Your task to perform on an android device: move a message to another label in the gmail app Image 0: 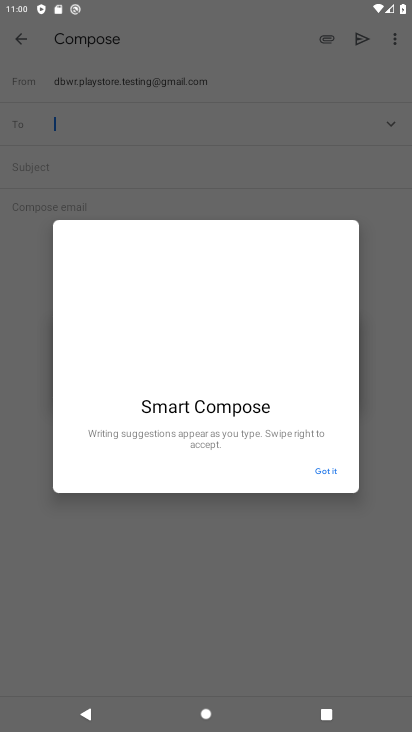
Step 0: press home button
Your task to perform on an android device: move a message to another label in the gmail app Image 1: 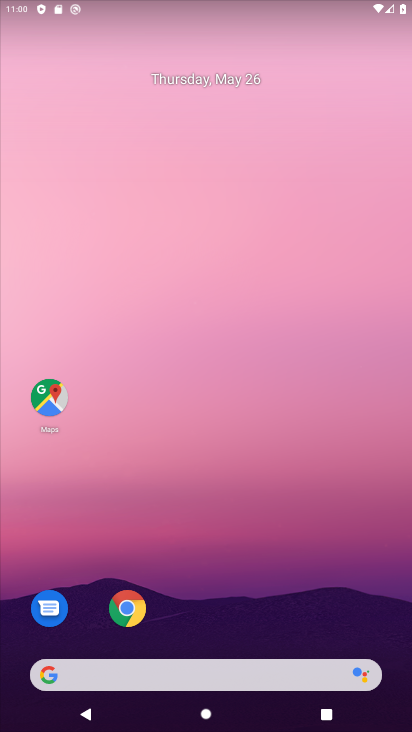
Step 1: drag from (285, 544) to (106, 37)
Your task to perform on an android device: move a message to another label in the gmail app Image 2: 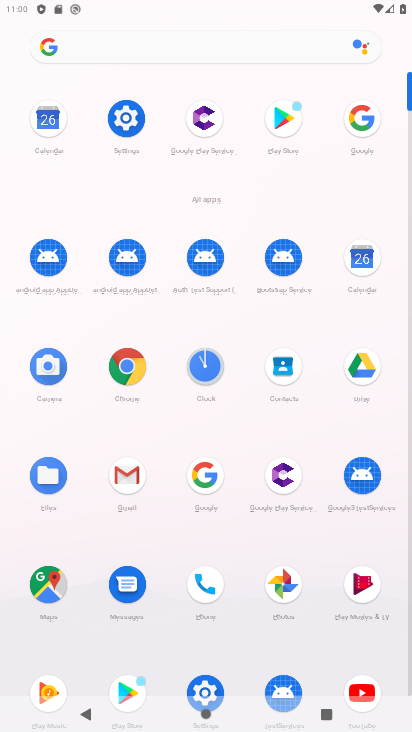
Step 2: click (130, 478)
Your task to perform on an android device: move a message to another label in the gmail app Image 3: 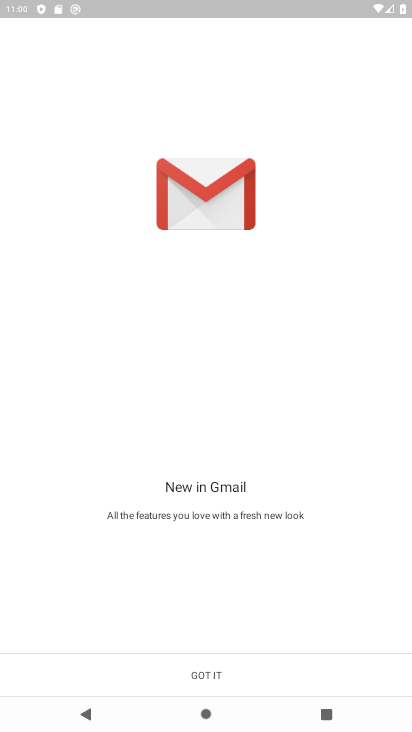
Step 3: click (211, 664)
Your task to perform on an android device: move a message to another label in the gmail app Image 4: 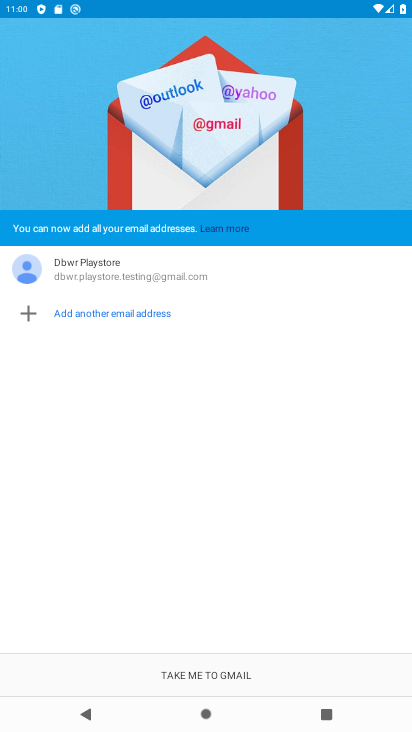
Step 4: click (203, 669)
Your task to perform on an android device: move a message to another label in the gmail app Image 5: 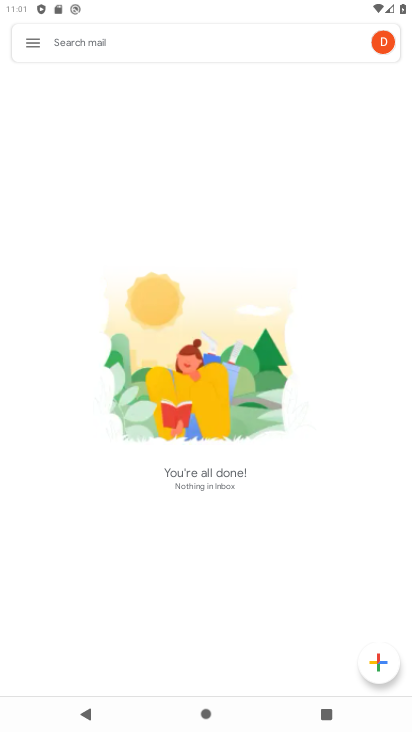
Step 5: press home button
Your task to perform on an android device: move a message to another label in the gmail app Image 6: 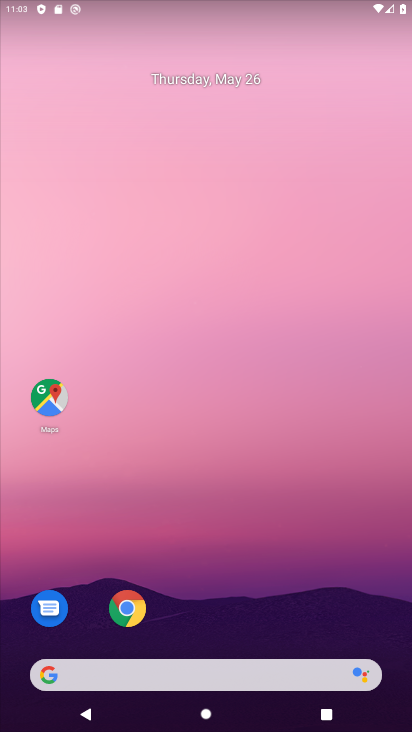
Step 6: drag from (283, 557) to (69, 19)
Your task to perform on an android device: move a message to another label in the gmail app Image 7: 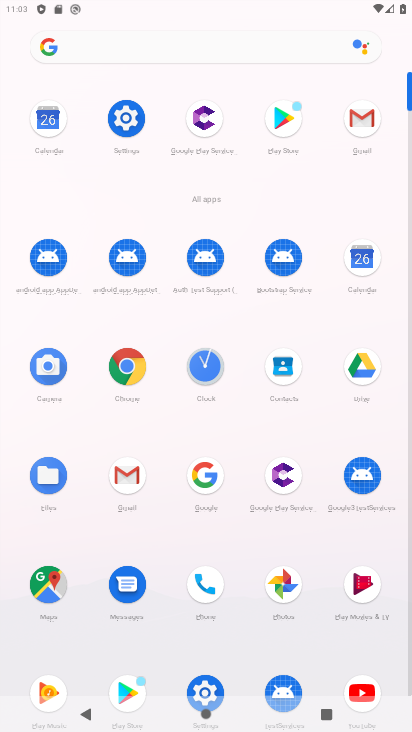
Step 7: click (134, 483)
Your task to perform on an android device: move a message to another label in the gmail app Image 8: 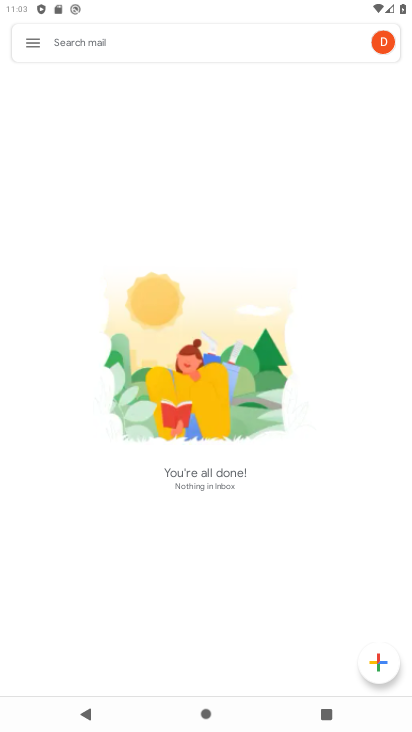
Step 8: click (34, 36)
Your task to perform on an android device: move a message to another label in the gmail app Image 9: 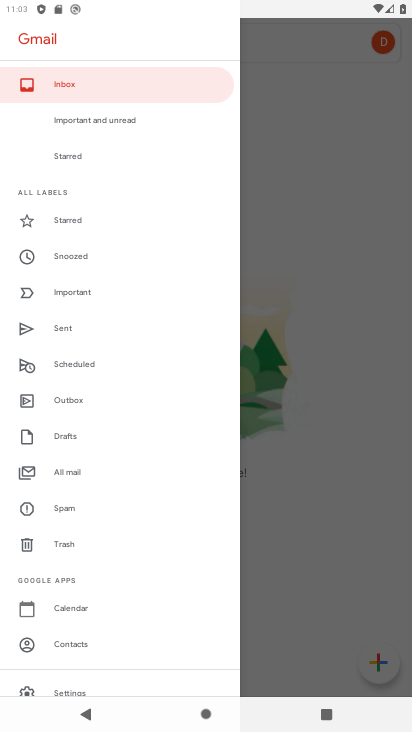
Step 9: click (66, 466)
Your task to perform on an android device: move a message to another label in the gmail app Image 10: 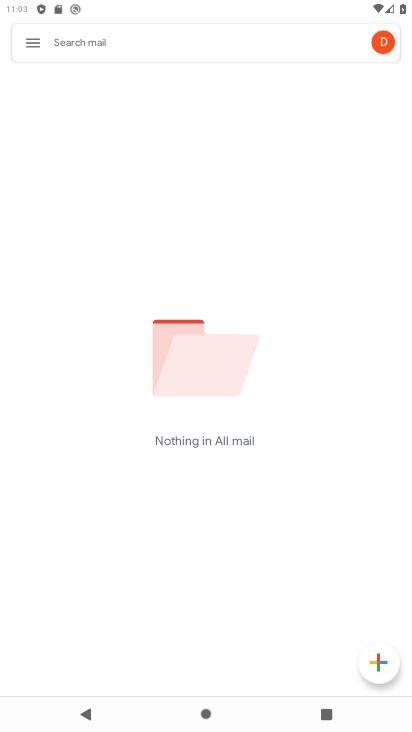
Step 10: task complete